Your task to perform on an android device: open app "PlayWell" Image 0: 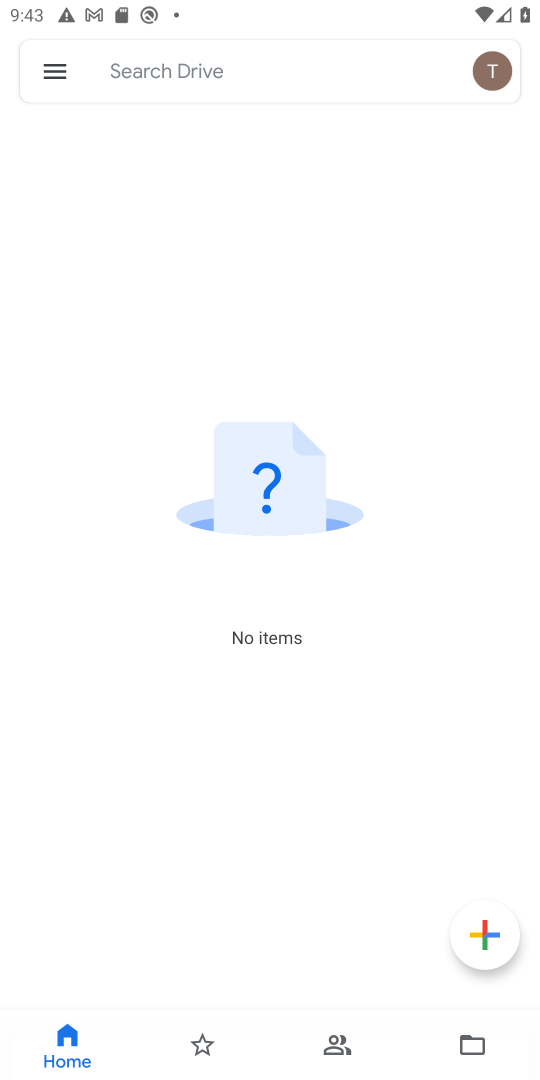
Step 0: press home button
Your task to perform on an android device: open app "PlayWell" Image 1: 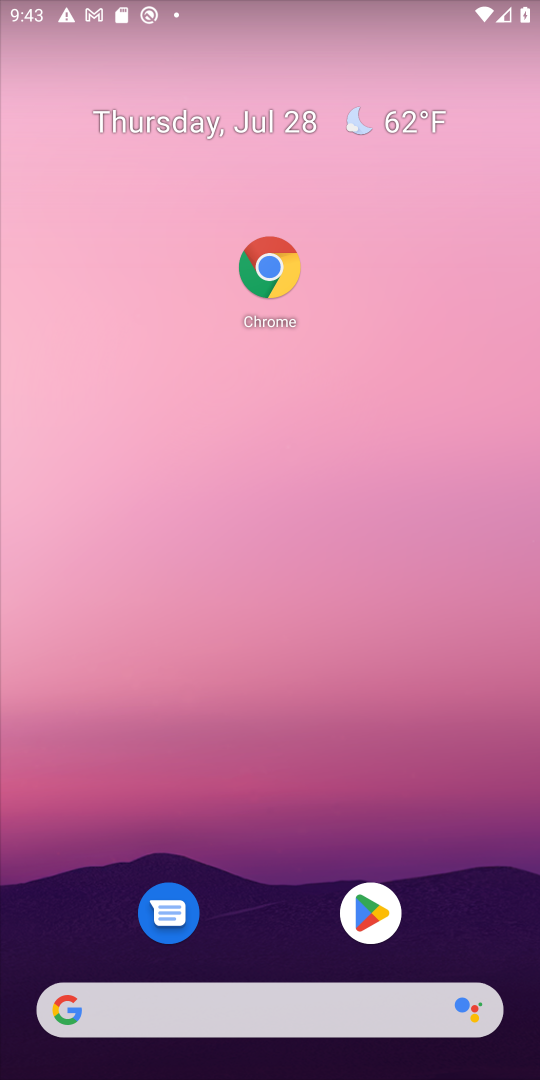
Step 1: drag from (404, 1047) to (411, 262)
Your task to perform on an android device: open app "PlayWell" Image 2: 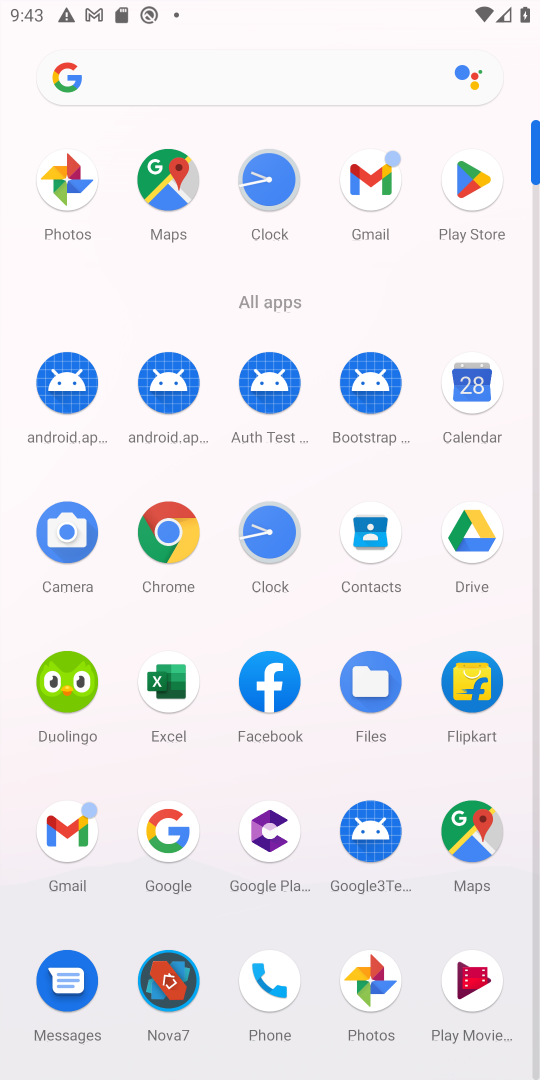
Step 2: click (456, 172)
Your task to perform on an android device: open app "PlayWell" Image 3: 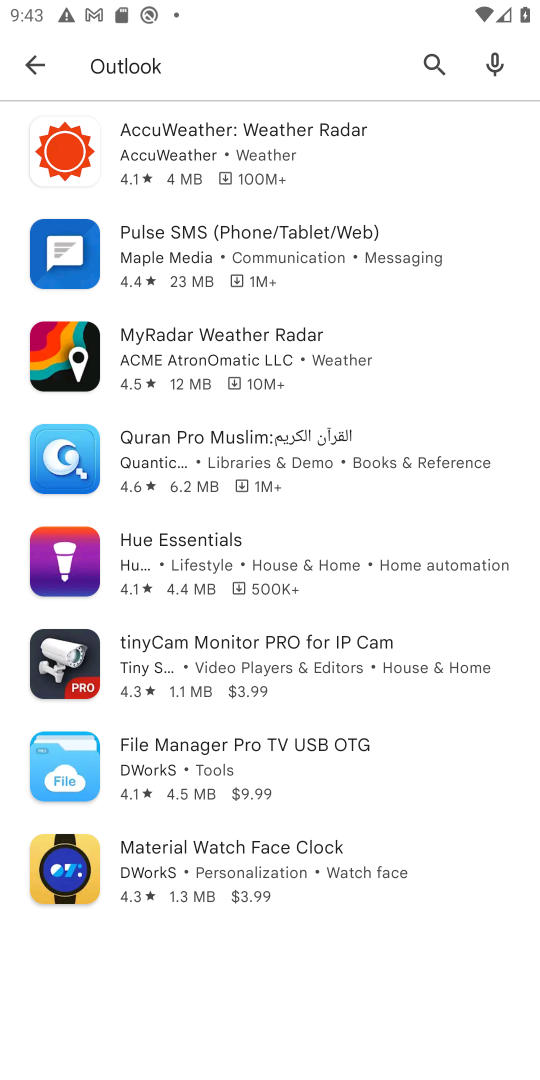
Step 3: click (449, 74)
Your task to perform on an android device: open app "PlayWell" Image 4: 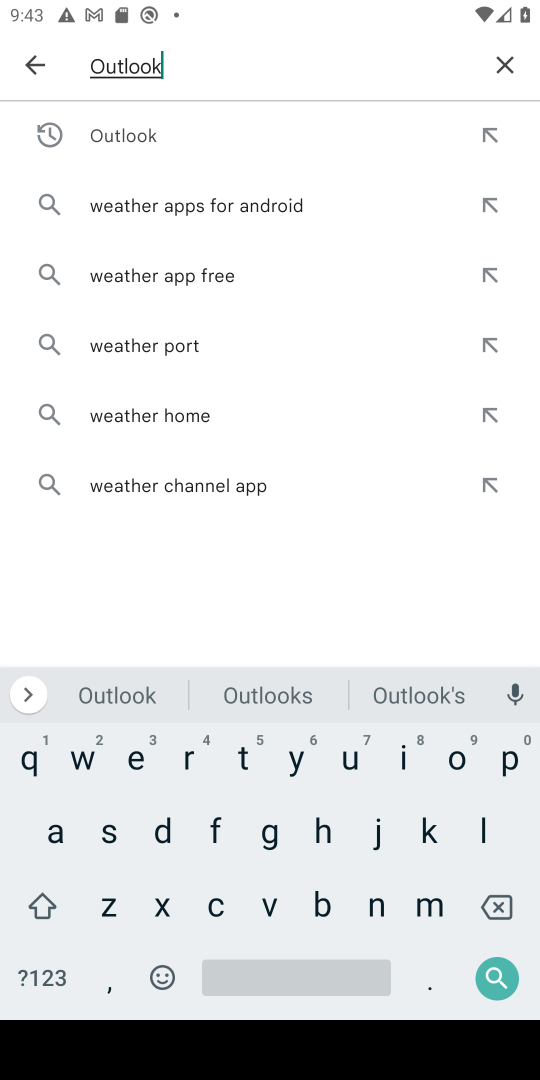
Step 4: click (496, 53)
Your task to perform on an android device: open app "PlayWell" Image 5: 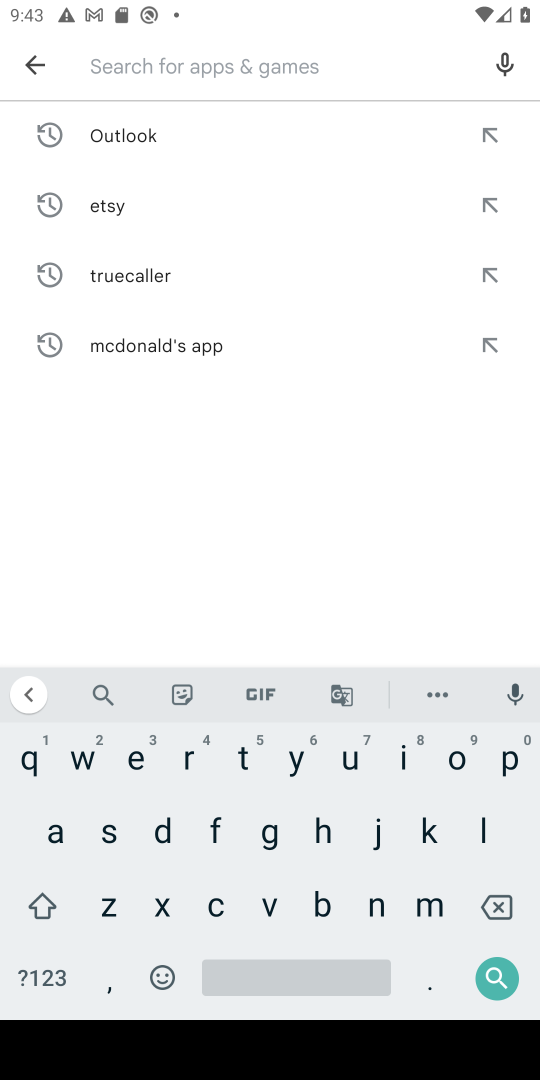
Step 5: type "playwell"
Your task to perform on an android device: open app "PlayWell" Image 6: 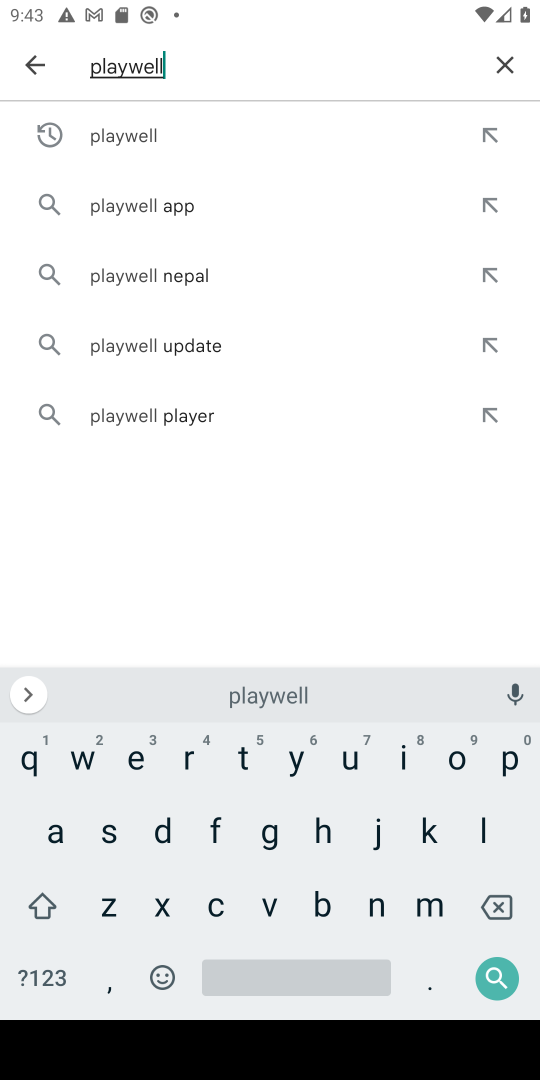
Step 6: click (297, 133)
Your task to perform on an android device: open app "PlayWell" Image 7: 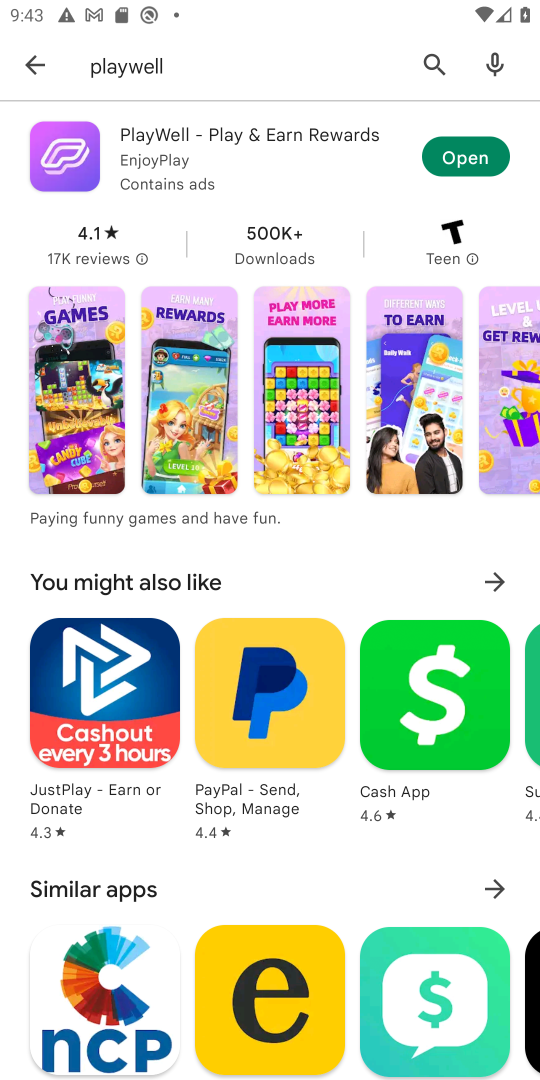
Step 7: click (448, 154)
Your task to perform on an android device: open app "PlayWell" Image 8: 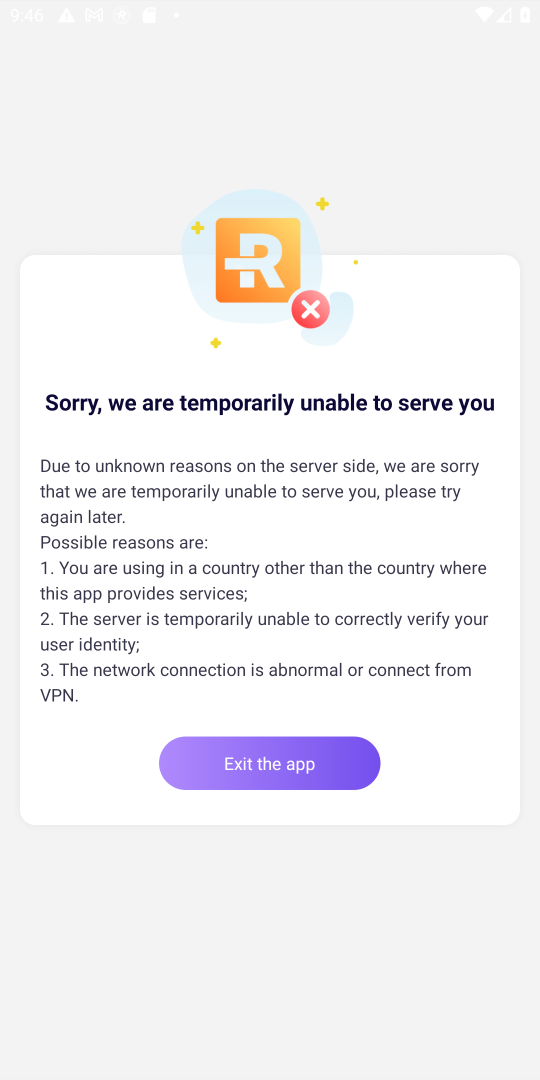
Step 8: task complete